Your task to perform on an android device: Open calendar and show me the fourth week of next month Image 0: 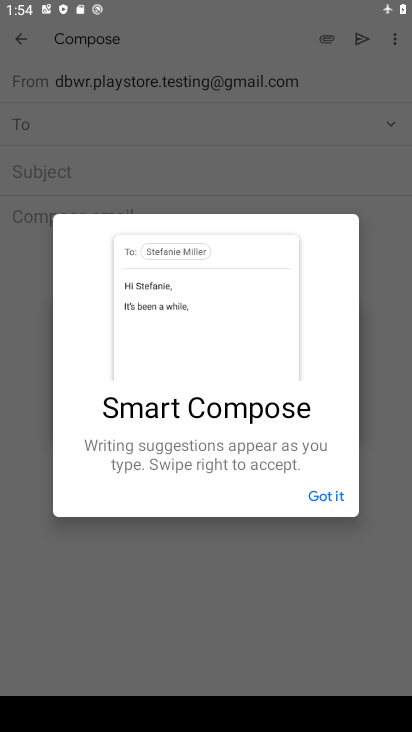
Step 0: press home button
Your task to perform on an android device: Open calendar and show me the fourth week of next month Image 1: 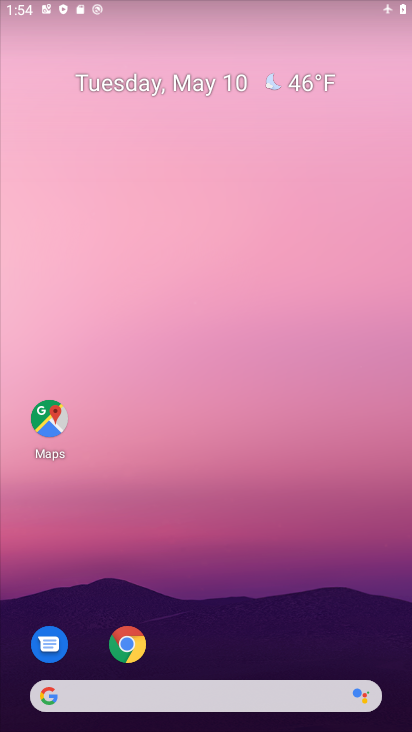
Step 1: drag from (336, 495) to (336, 196)
Your task to perform on an android device: Open calendar and show me the fourth week of next month Image 2: 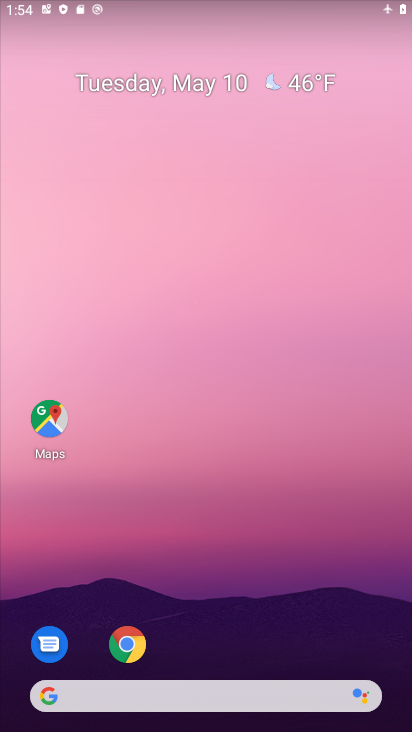
Step 2: drag from (271, 502) to (244, 99)
Your task to perform on an android device: Open calendar and show me the fourth week of next month Image 3: 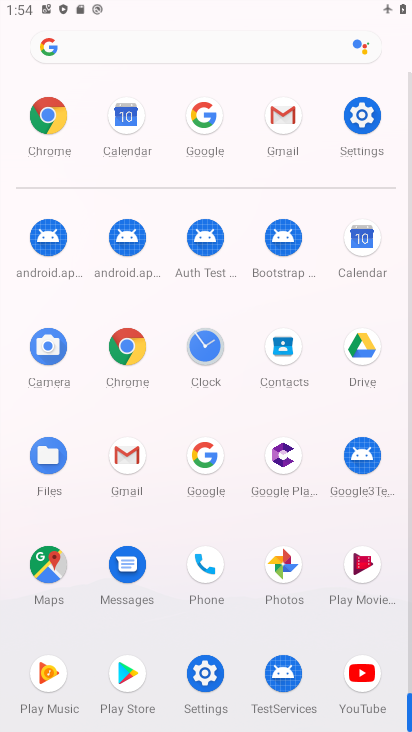
Step 3: click (375, 250)
Your task to perform on an android device: Open calendar and show me the fourth week of next month Image 4: 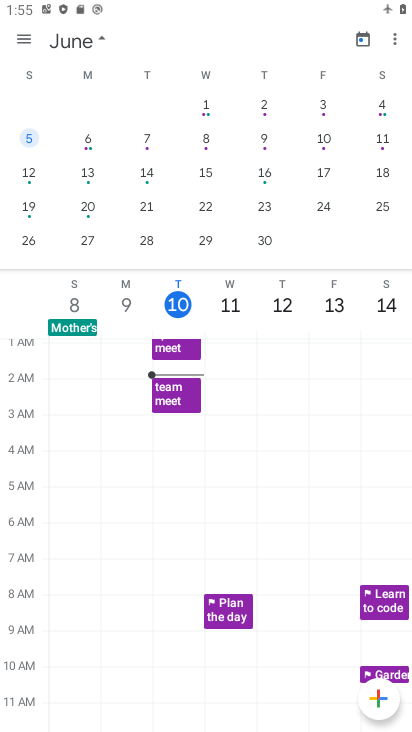
Step 4: click (78, 40)
Your task to perform on an android device: Open calendar and show me the fourth week of next month Image 5: 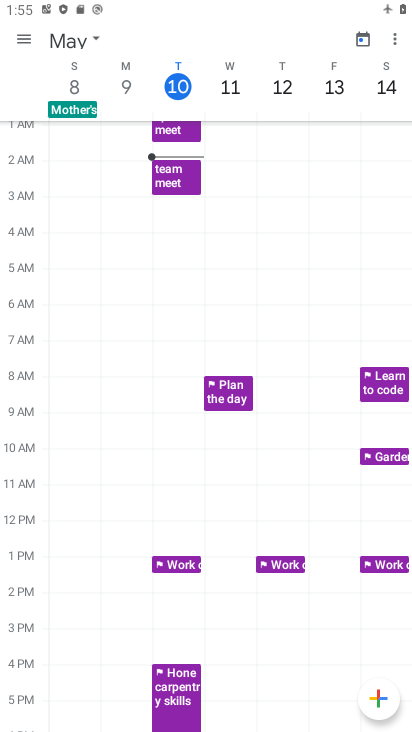
Step 5: click (93, 43)
Your task to perform on an android device: Open calendar and show me the fourth week of next month Image 6: 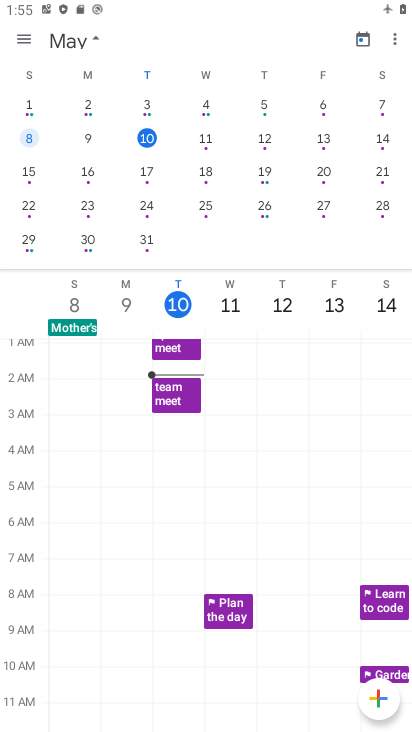
Step 6: drag from (283, 171) to (0, 177)
Your task to perform on an android device: Open calendar and show me the fourth week of next month Image 7: 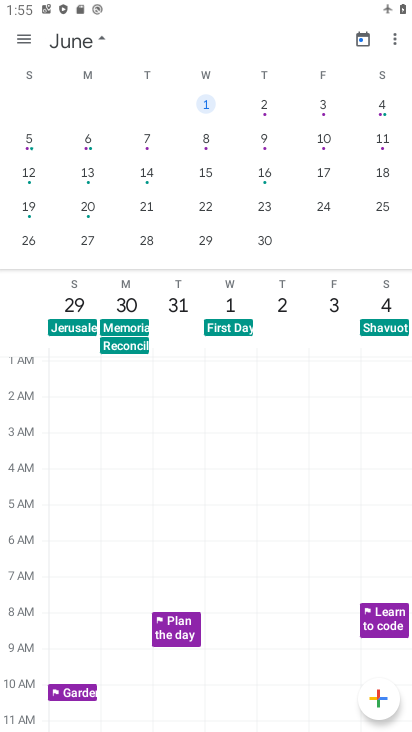
Step 7: click (27, 208)
Your task to perform on an android device: Open calendar and show me the fourth week of next month Image 8: 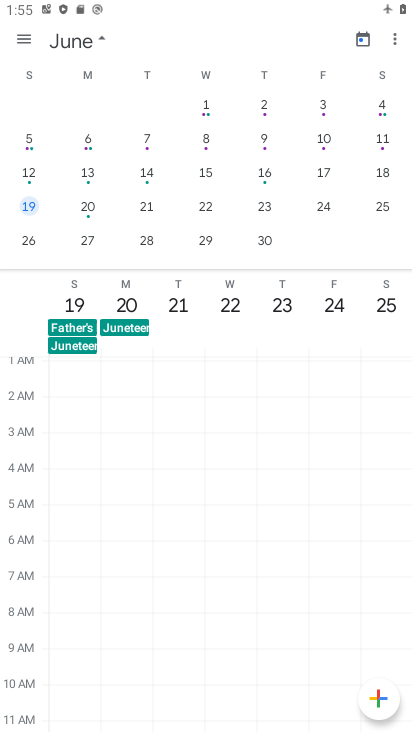
Step 8: task complete